Your task to perform on an android device: Go to settings Image 0: 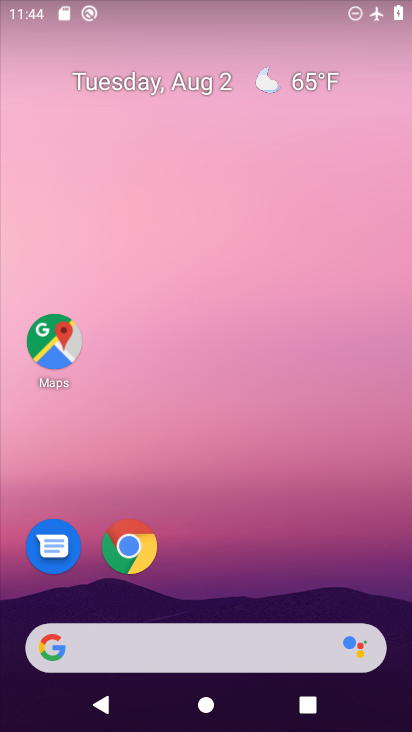
Step 0: drag from (220, 583) to (199, 126)
Your task to perform on an android device: Go to settings Image 1: 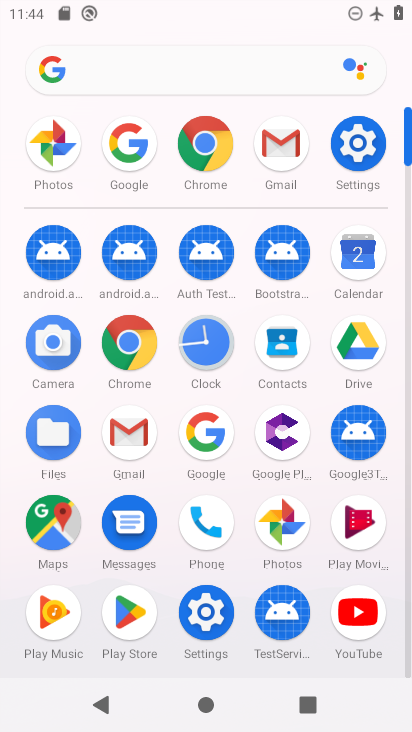
Step 1: click (382, 142)
Your task to perform on an android device: Go to settings Image 2: 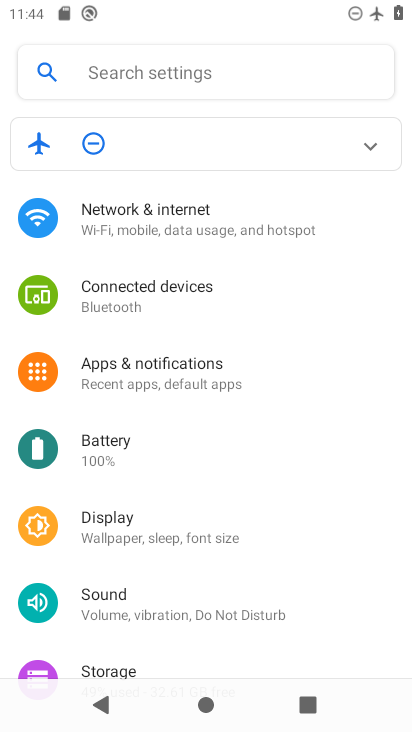
Step 2: task complete